Your task to perform on an android device: Open display settings Image 0: 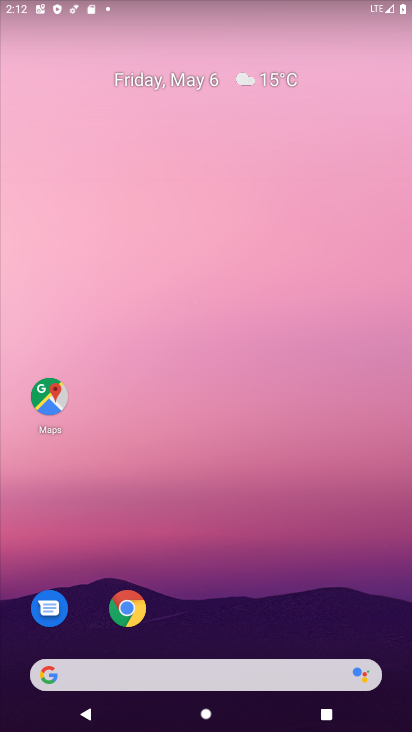
Step 0: drag from (252, 572) to (143, 35)
Your task to perform on an android device: Open display settings Image 1: 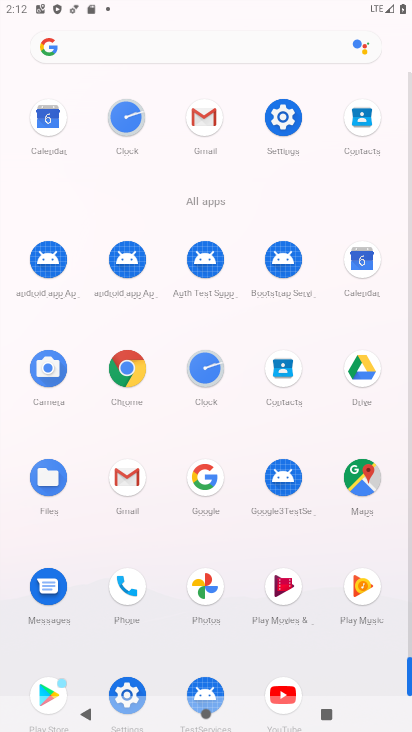
Step 1: click (282, 117)
Your task to perform on an android device: Open display settings Image 2: 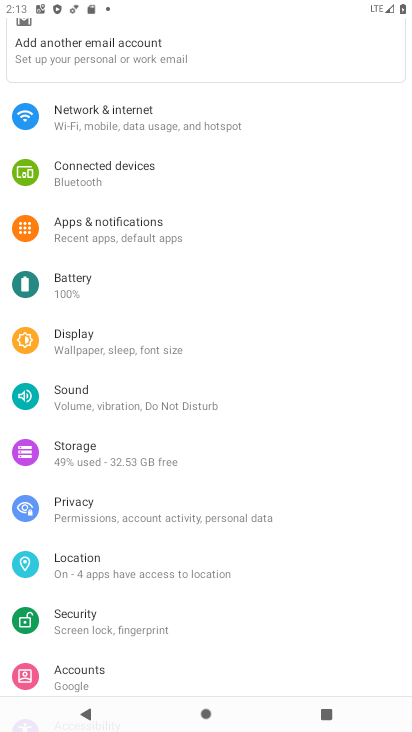
Step 2: click (79, 336)
Your task to perform on an android device: Open display settings Image 3: 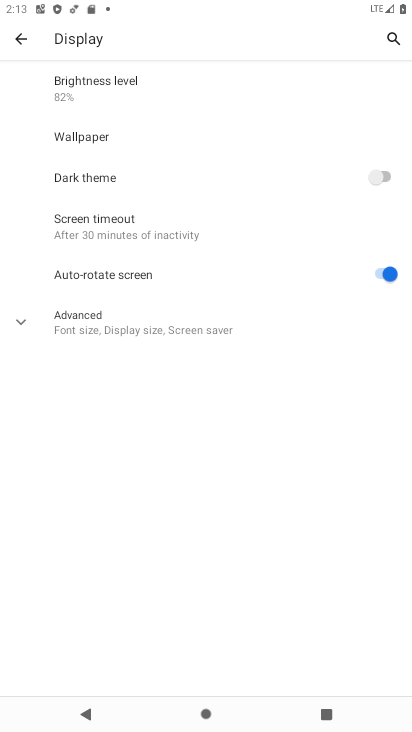
Step 3: task complete